Your task to perform on an android device: open app "HBO Max: Stream TV & Movies" Image 0: 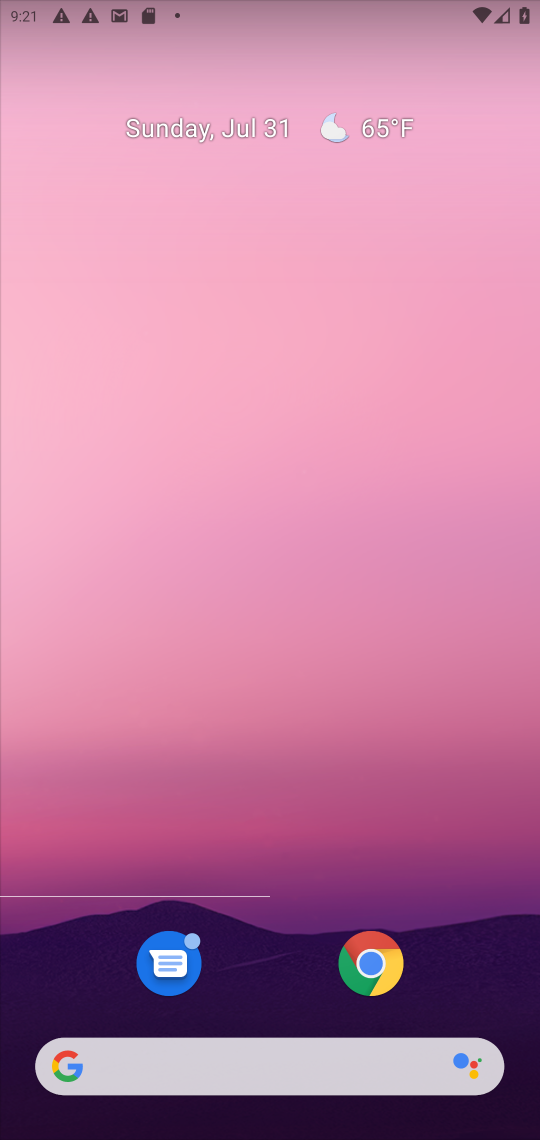
Step 0: press home button
Your task to perform on an android device: open app "HBO Max: Stream TV & Movies" Image 1: 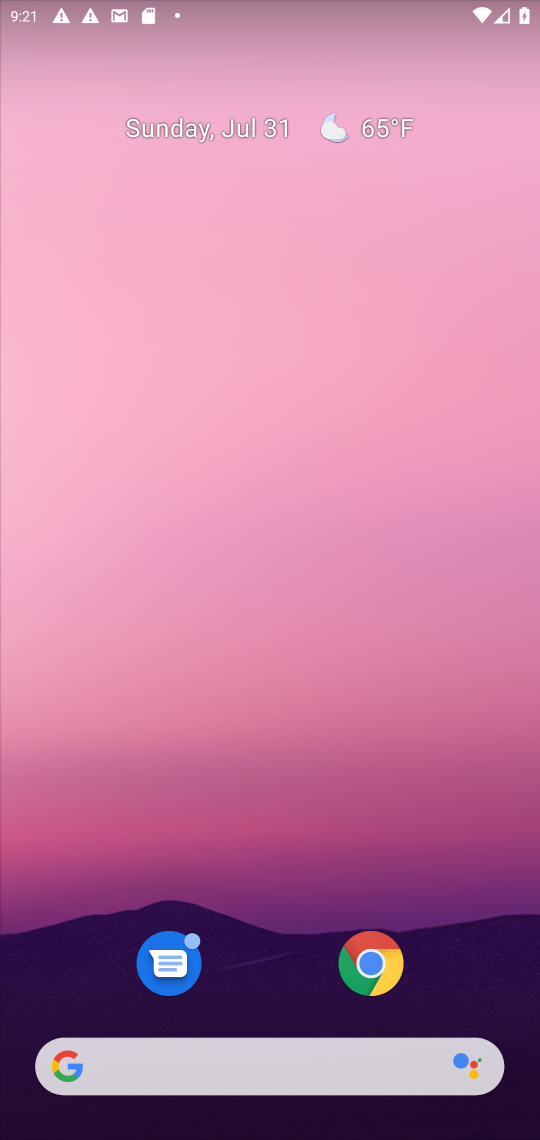
Step 1: drag from (292, 990) to (215, 3)
Your task to perform on an android device: open app "HBO Max: Stream TV & Movies" Image 2: 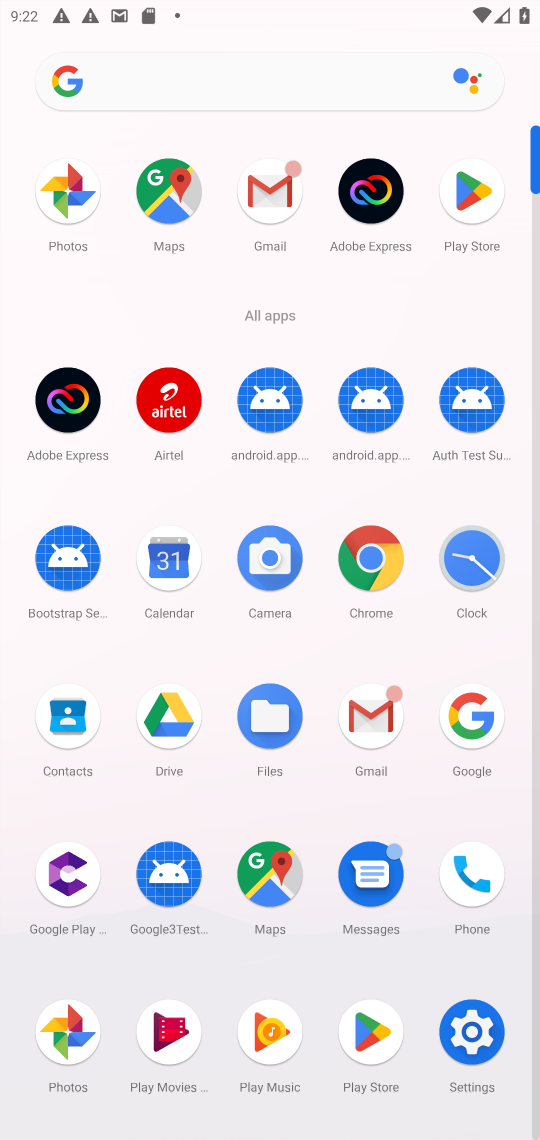
Step 2: click (482, 214)
Your task to perform on an android device: open app "HBO Max: Stream TV & Movies" Image 3: 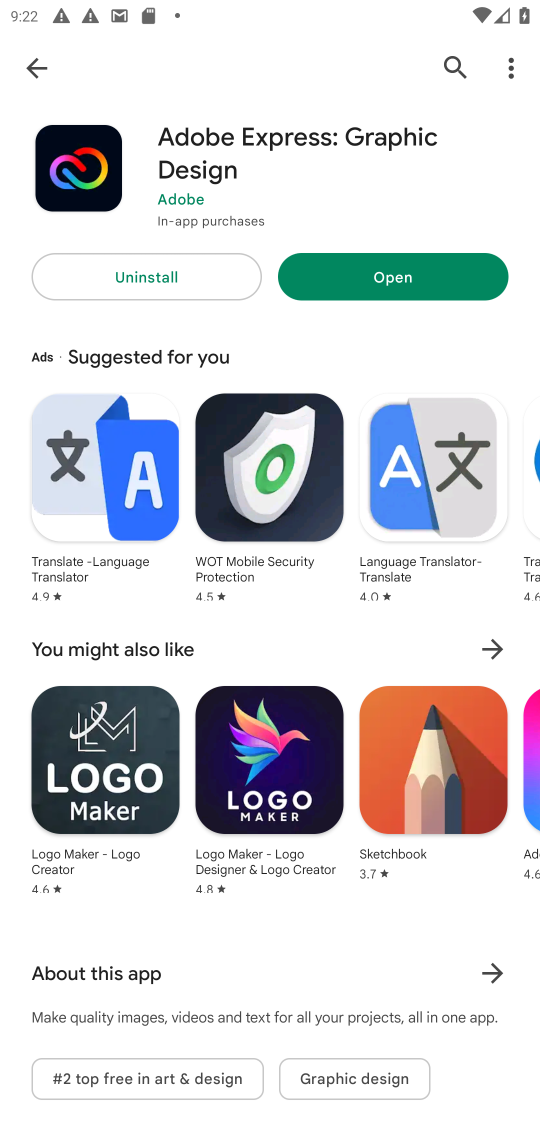
Step 3: click (448, 43)
Your task to perform on an android device: open app "HBO Max: Stream TV & Movies" Image 4: 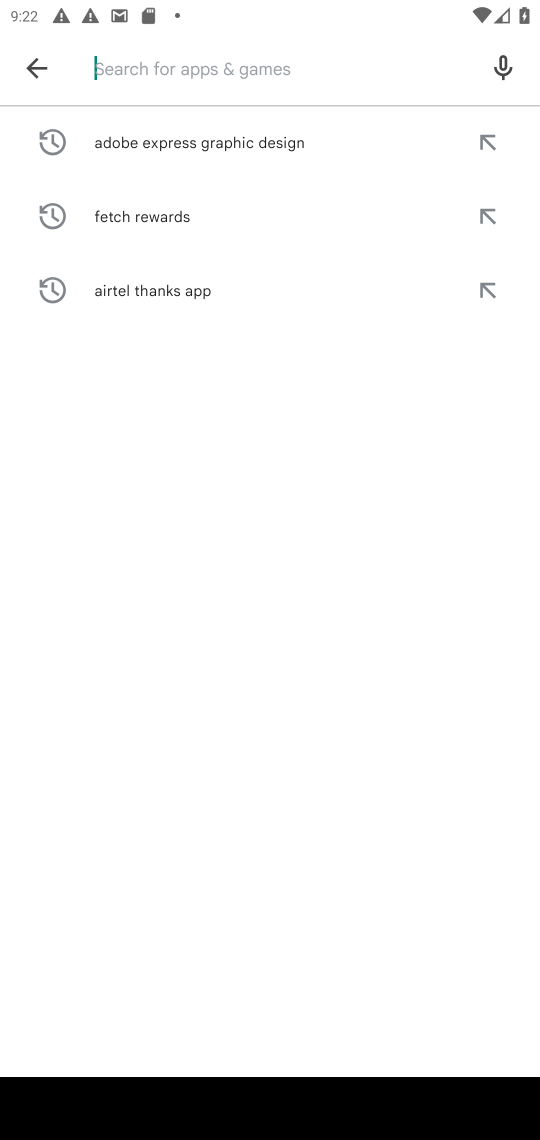
Step 4: type "HBO max : stream tv & movies"
Your task to perform on an android device: open app "HBO Max: Stream TV & Movies" Image 5: 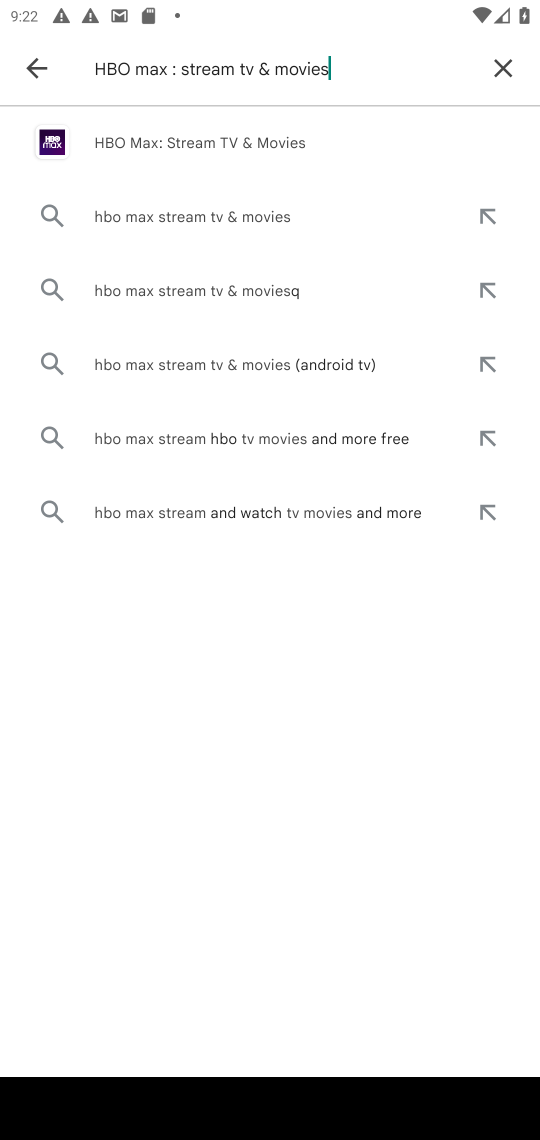
Step 5: click (302, 142)
Your task to perform on an android device: open app "HBO Max: Stream TV & Movies" Image 6: 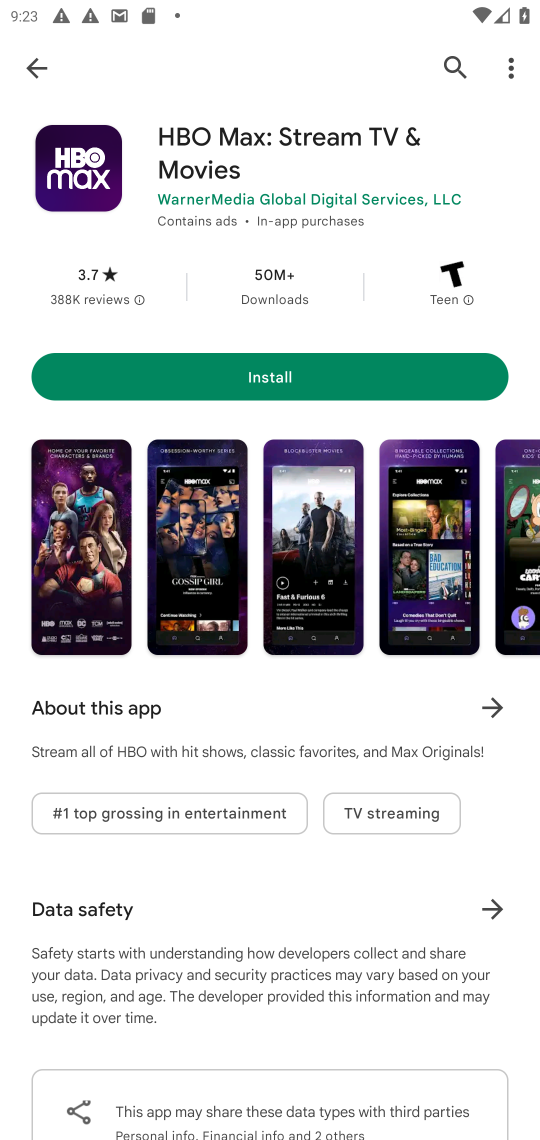
Step 6: task complete